Your task to perform on an android device: Search for the ikea sjalv lamp Image 0: 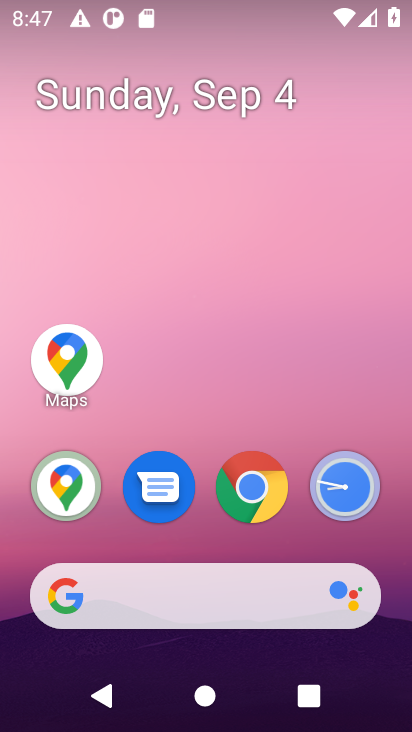
Step 0: click (49, 355)
Your task to perform on an android device: Search for the ikea sjalv lamp Image 1: 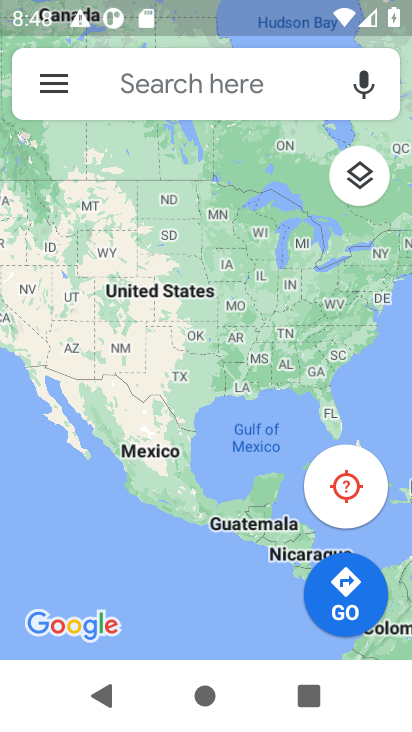
Step 1: task complete